Your task to perform on an android device: Open Google Chrome Image 0: 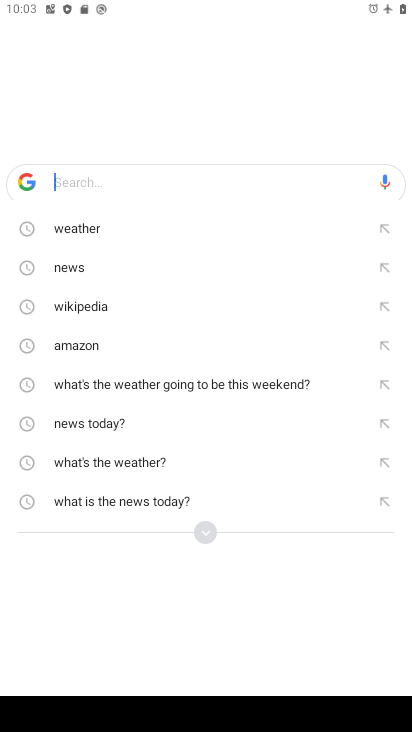
Step 0: press home button
Your task to perform on an android device: Open Google Chrome Image 1: 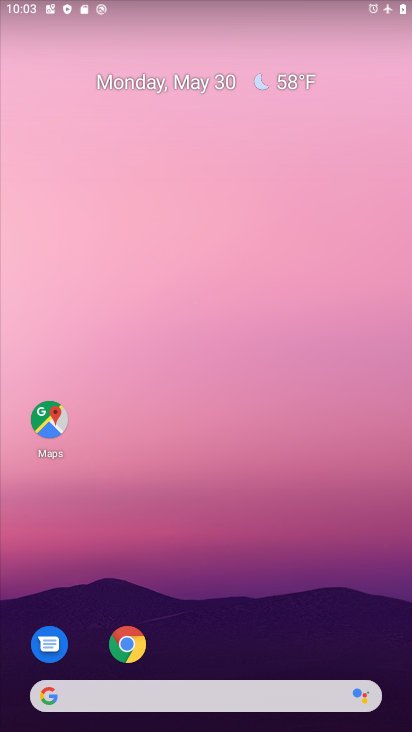
Step 1: click (126, 644)
Your task to perform on an android device: Open Google Chrome Image 2: 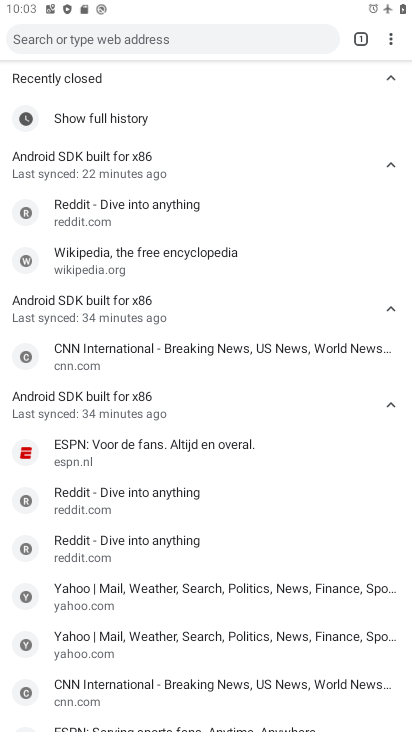
Step 2: task complete